Your task to perform on an android device: Go to display settings Image 0: 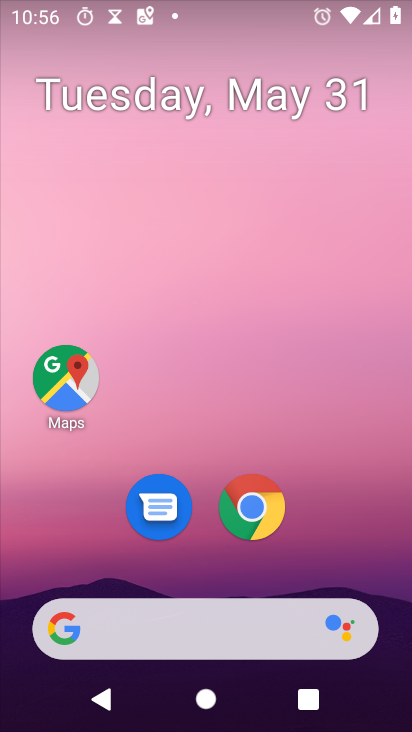
Step 0: drag from (29, 679) to (325, 272)
Your task to perform on an android device: Go to display settings Image 1: 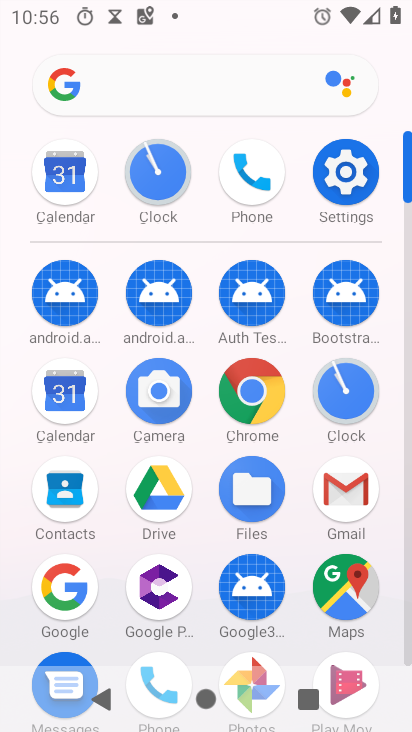
Step 1: click (348, 173)
Your task to perform on an android device: Go to display settings Image 2: 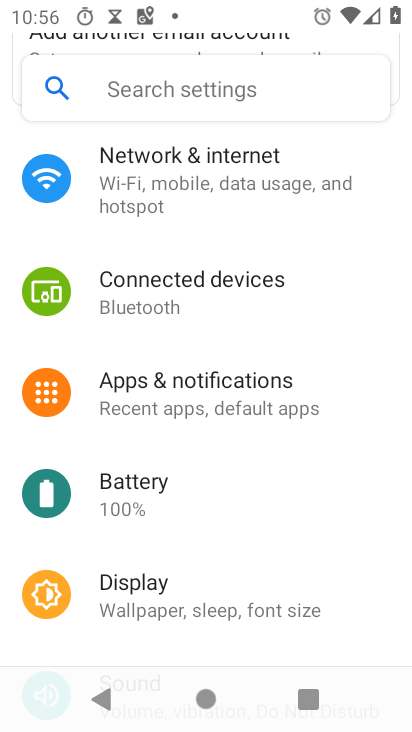
Step 2: click (83, 599)
Your task to perform on an android device: Go to display settings Image 3: 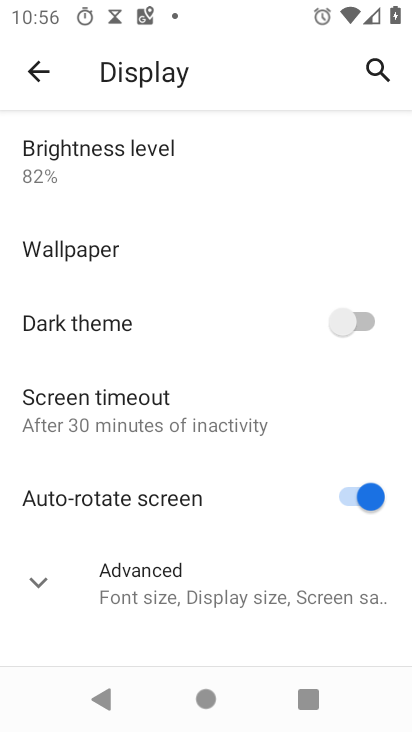
Step 3: task complete